Your task to perform on an android device: make emails show in primary in the gmail app Image 0: 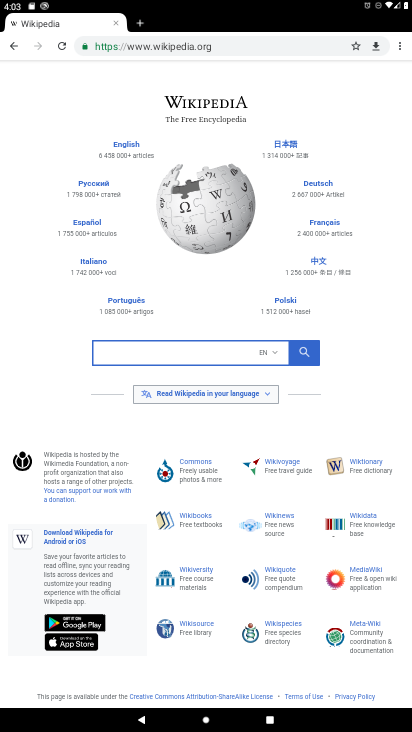
Step 0: press home button
Your task to perform on an android device: make emails show in primary in the gmail app Image 1: 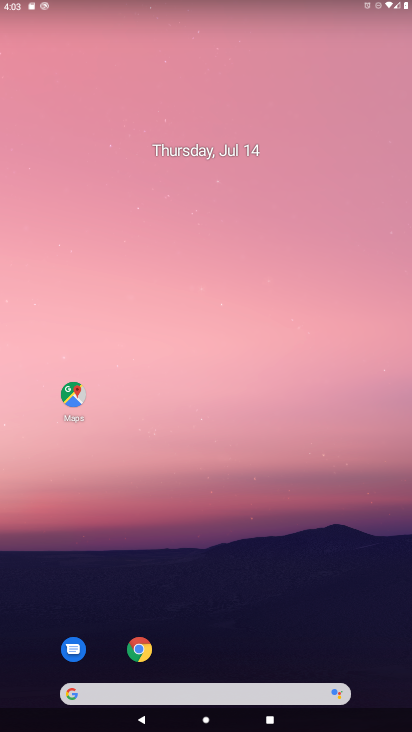
Step 1: drag from (258, 660) to (277, 83)
Your task to perform on an android device: make emails show in primary in the gmail app Image 2: 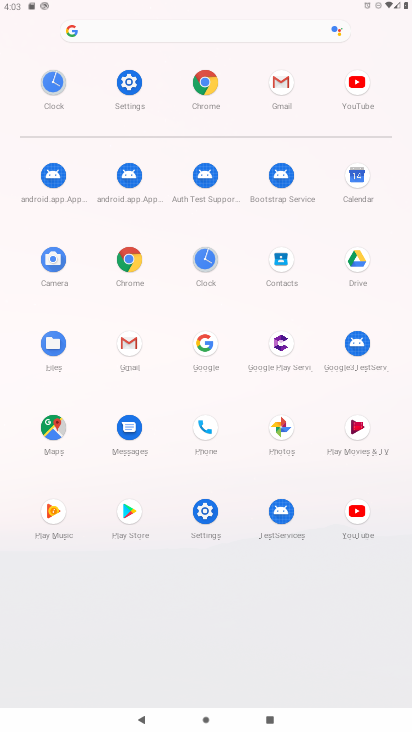
Step 2: click (143, 360)
Your task to perform on an android device: make emails show in primary in the gmail app Image 3: 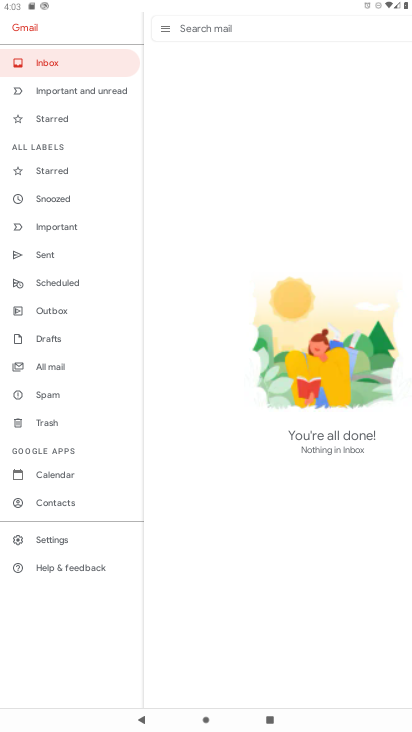
Step 3: click (60, 546)
Your task to perform on an android device: make emails show in primary in the gmail app Image 4: 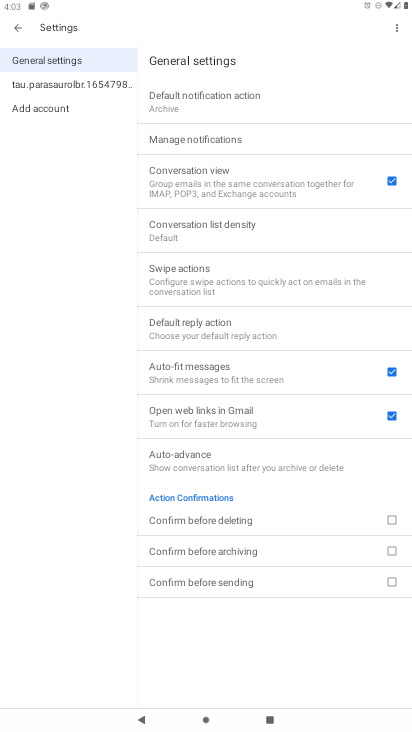
Step 4: click (74, 91)
Your task to perform on an android device: make emails show in primary in the gmail app Image 5: 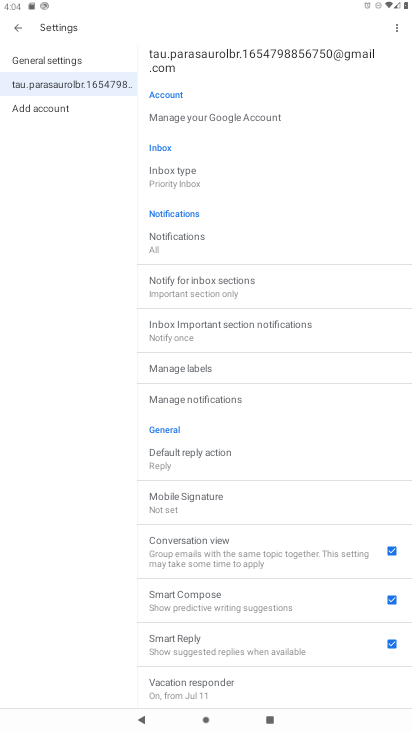
Step 5: click (181, 173)
Your task to perform on an android device: make emails show in primary in the gmail app Image 6: 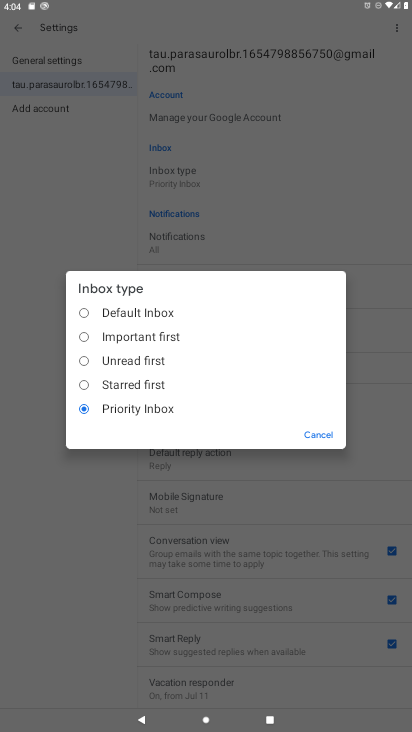
Step 6: click (125, 312)
Your task to perform on an android device: make emails show in primary in the gmail app Image 7: 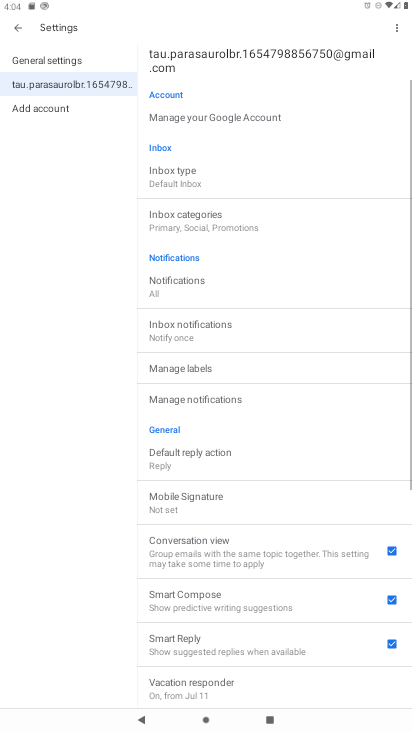
Step 7: click (215, 227)
Your task to perform on an android device: make emails show in primary in the gmail app Image 8: 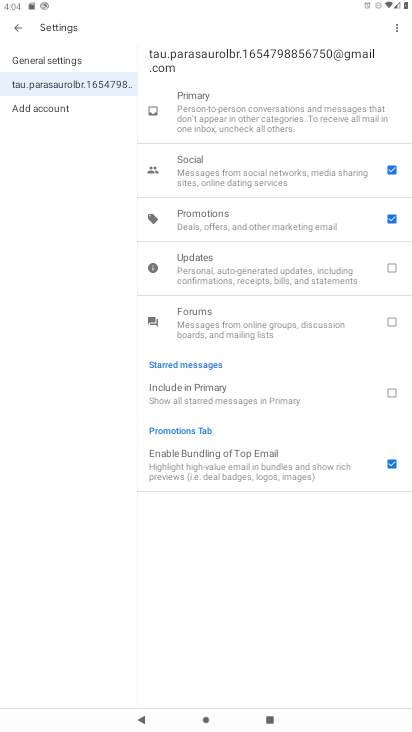
Step 8: click (384, 169)
Your task to perform on an android device: make emails show in primary in the gmail app Image 9: 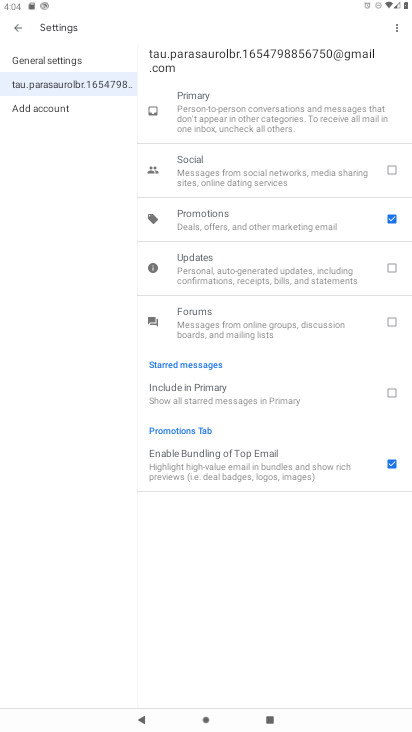
Step 9: click (386, 220)
Your task to perform on an android device: make emails show in primary in the gmail app Image 10: 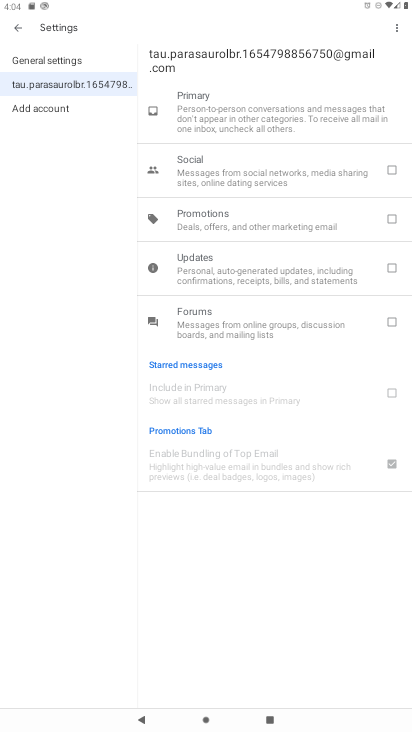
Step 10: task complete